Your task to perform on an android device: change your default location settings in chrome Image 0: 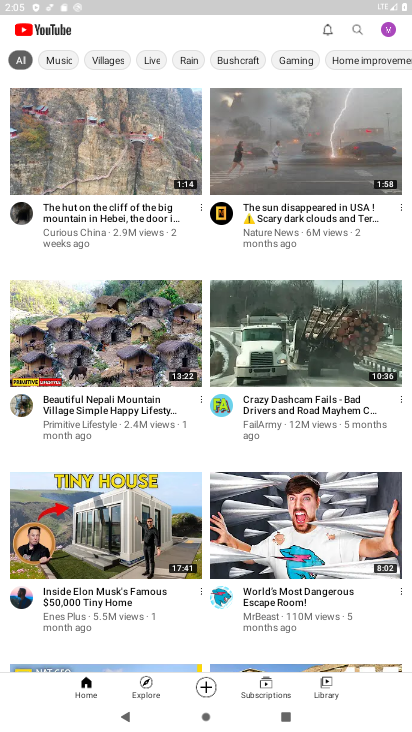
Step 0: press home button
Your task to perform on an android device: change your default location settings in chrome Image 1: 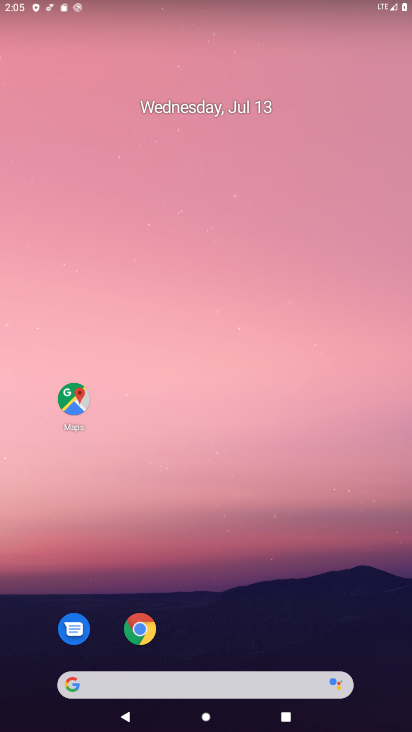
Step 1: click (144, 633)
Your task to perform on an android device: change your default location settings in chrome Image 2: 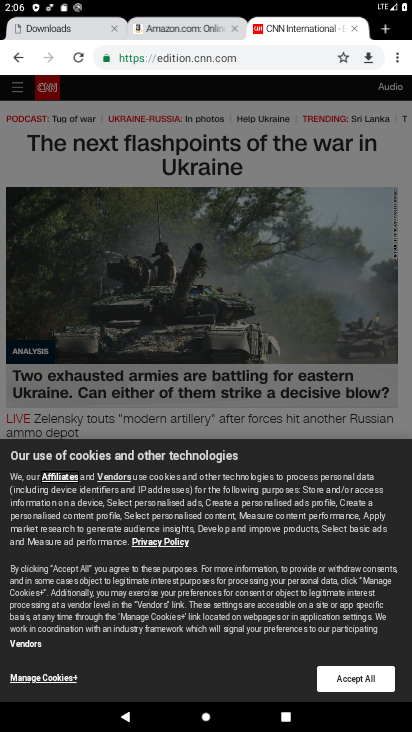
Step 2: click (403, 60)
Your task to perform on an android device: change your default location settings in chrome Image 3: 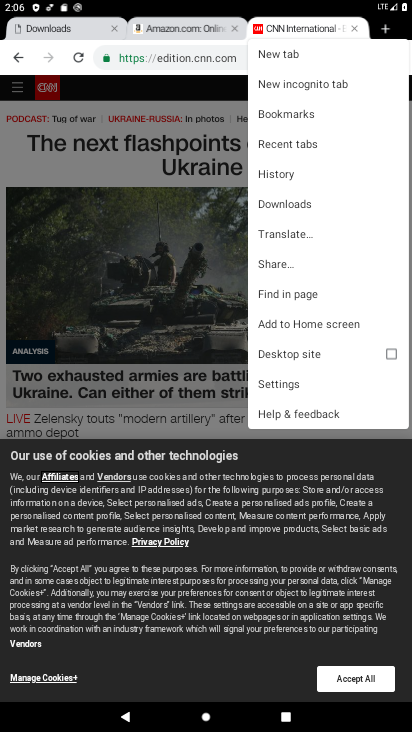
Step 3: click (305, 386)
Your task to perform on an android device: change your default location settings in chrome Image 4: 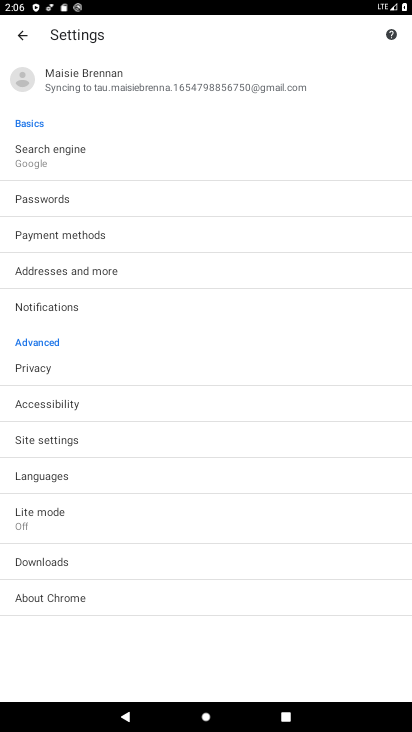
Step 4: click (109, 262)
Your task to perform on an android device: change your default location settings in chrome Image 5: 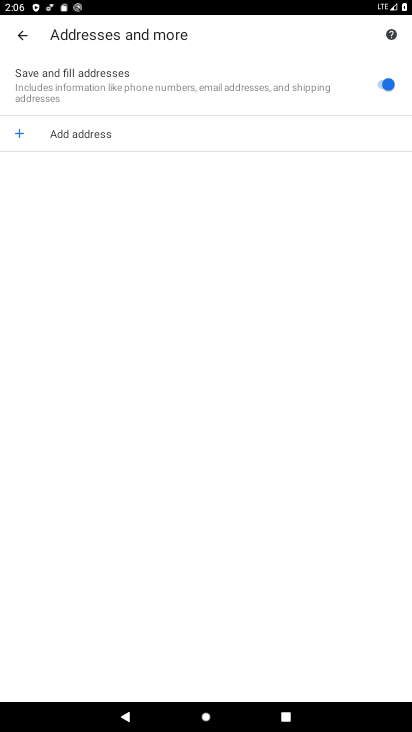
Step 5: task complete